Your task to perform on an android device: check google app version Image 0: 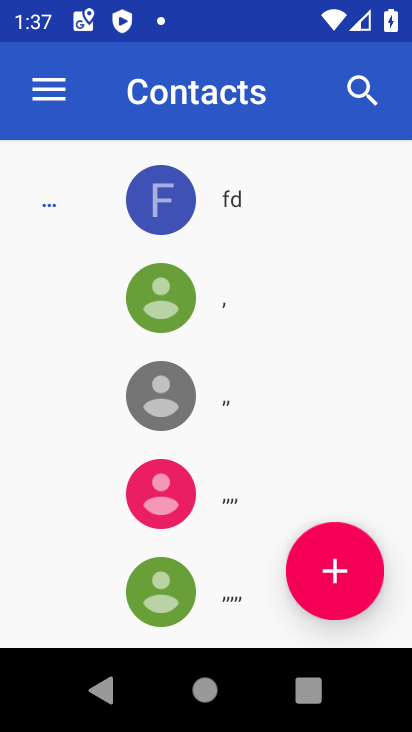
Step 0: press home button
Your task to perform on an android device: check google app version Image 1: 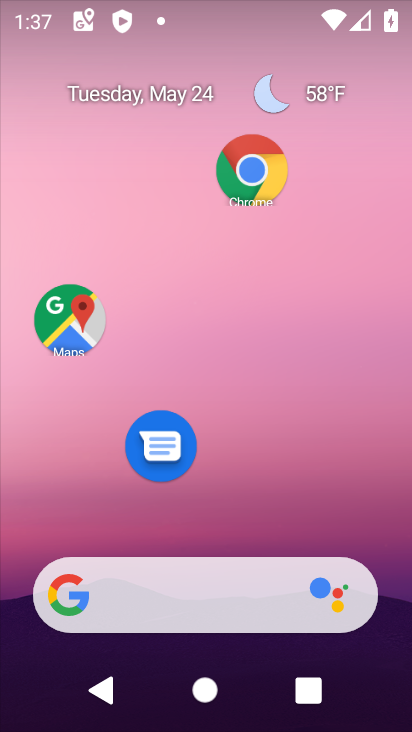
Step 1: drag from (278, 640) to (248, 117)
Your task to perform on an android device: check google app version Image 2: 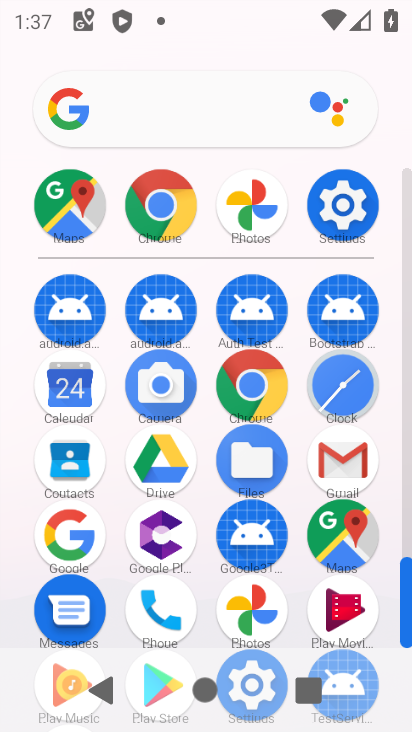
Step 2: click (70, 552)
Your task to perform on an android device: check google app version Image 3: 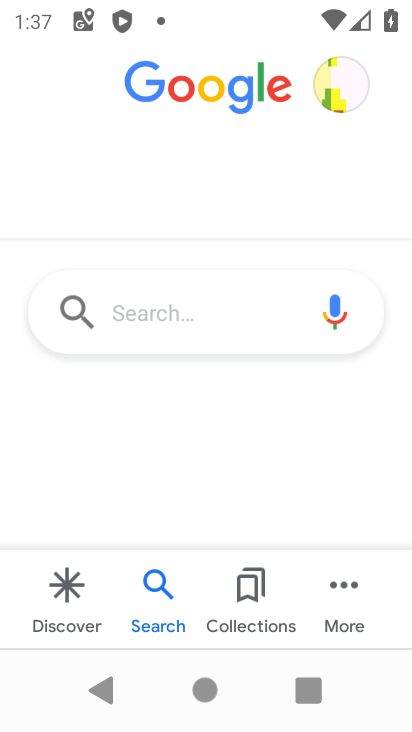
Step 3: click (346, 586)
Your task to perform on an android device: check google app version Image 4: 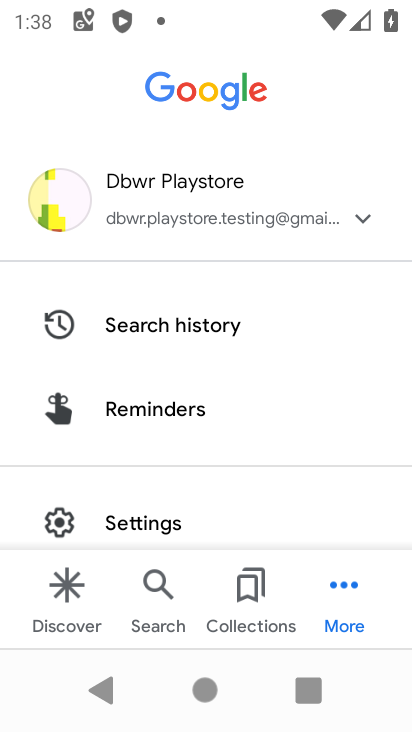
Step 4: click (201, 523)
Your task to perform on an android device: check google app version Image 5: 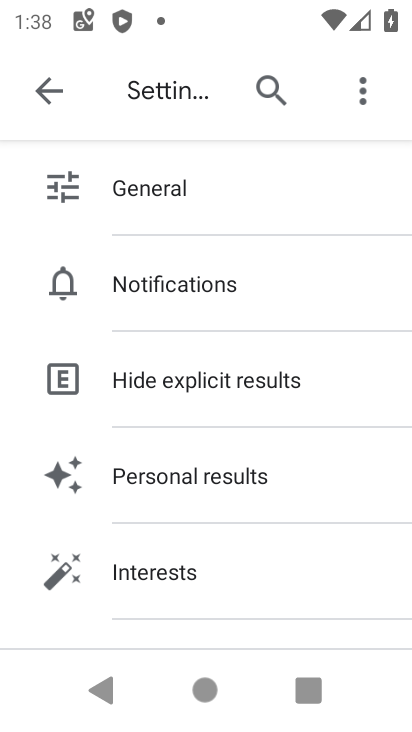
Step 5: drag from (209, 567) to (180, 240)
Your task to perform on an android device: check google app version Image 6: 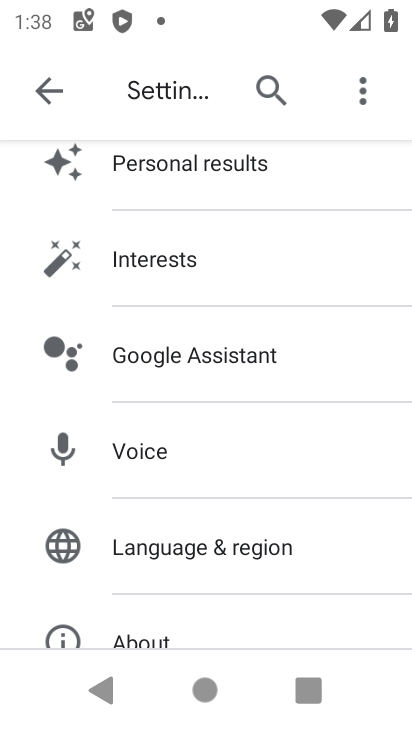
Step 6: drag from (205, 505) to (188, 232)
Your task to perform on an android device: check google app version Image 7: 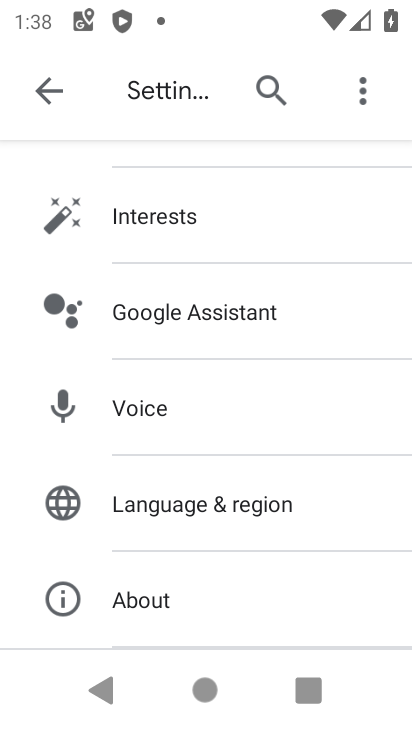
Step 7: drag from (203, 577) to (183, 353)
Your task to perform on an android device: check google app version Image 8: 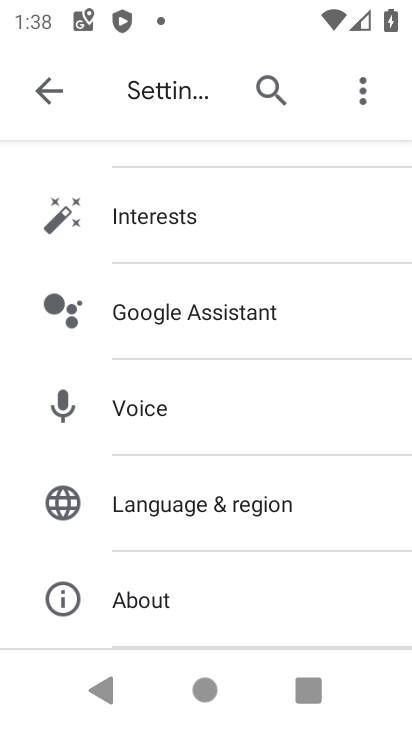
Step 8: click (186, 600)
Your task to perform on an android device: check google app version Image 9: 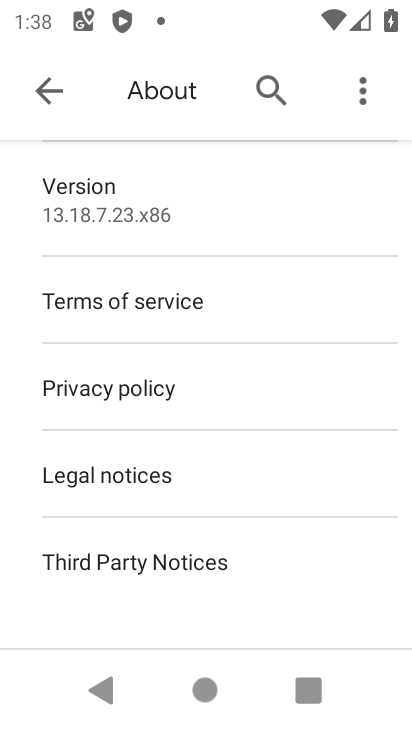
Step 9: click (153, 214)
Your task to perform on an android device: check google app version Image 10: 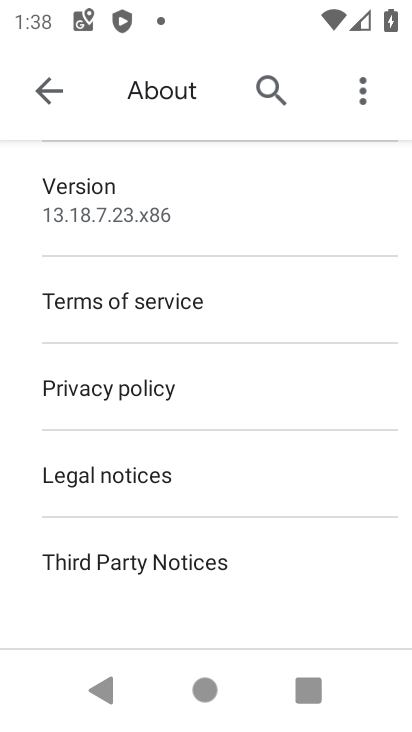
Step 10: task complete